Your task to perform on an android device: Open Google Maps Image 0: 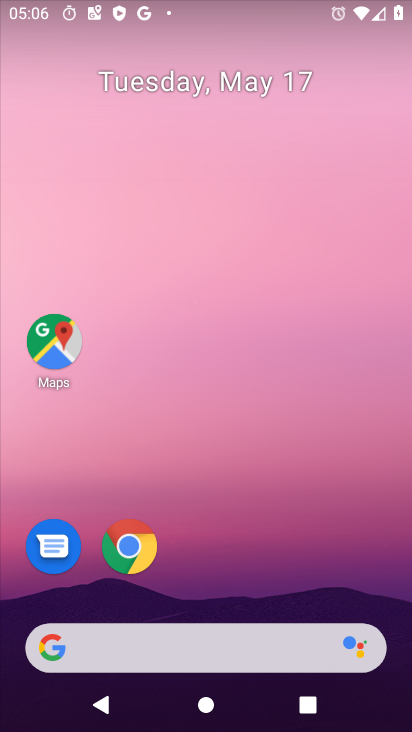
Step 0: click (44, 342)
Your task to perform on an android device: Open Google Maps Image 1: 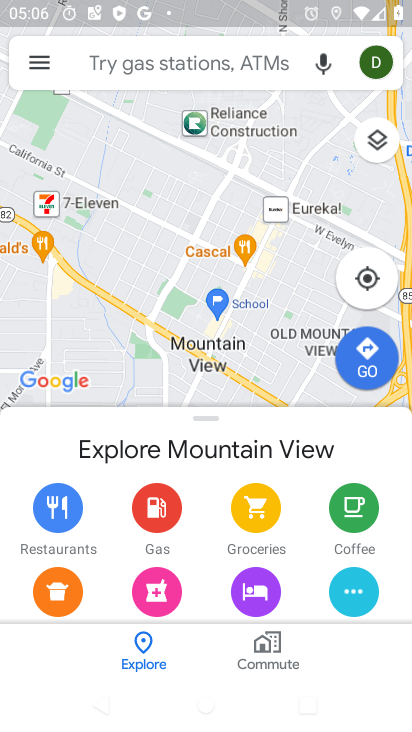
Step 1: task complete